Your task to perform on an android device: open wifi settings Image 0: 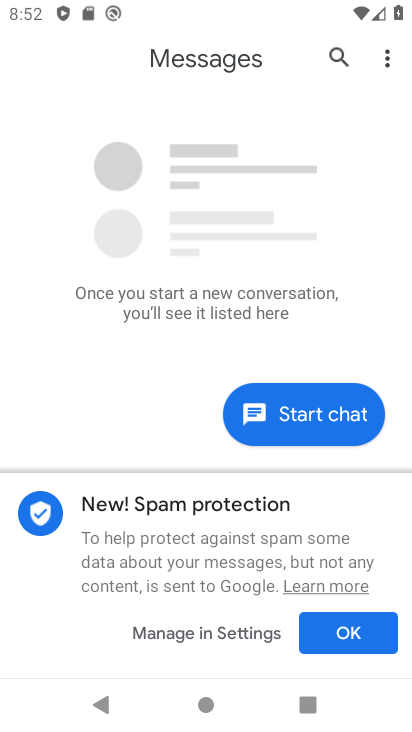
Step 0: press home button
Your task to perform on an android device: open wifi settings Image 1: 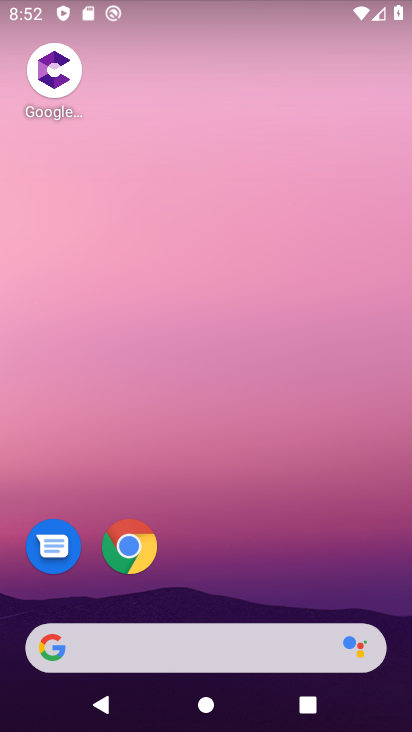
Step 1: drag from (208, 455) to (163, 10)
Your task to perform on an android device: open wifi settings Image 2: 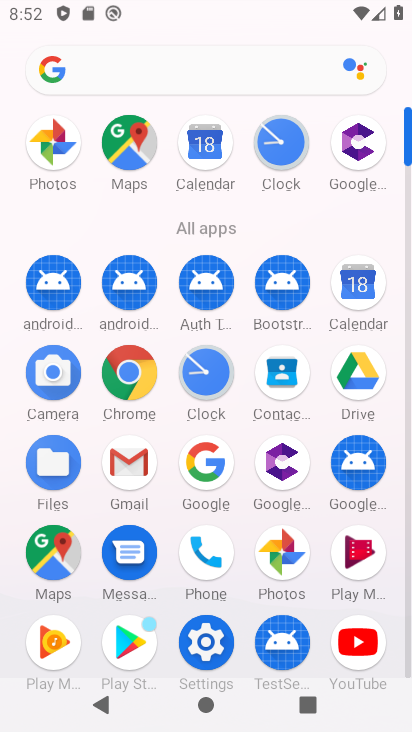
Step 2: drag from (396, 534) to (408, 356)
Your task to perform on an android device: open wifi settings Image 3: 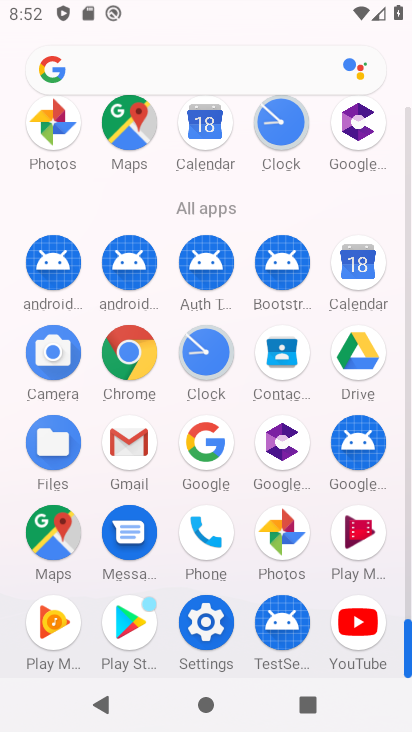
Step 3: click (194, 602)
Your task to perform on an android device: open wifi settings Image 4: 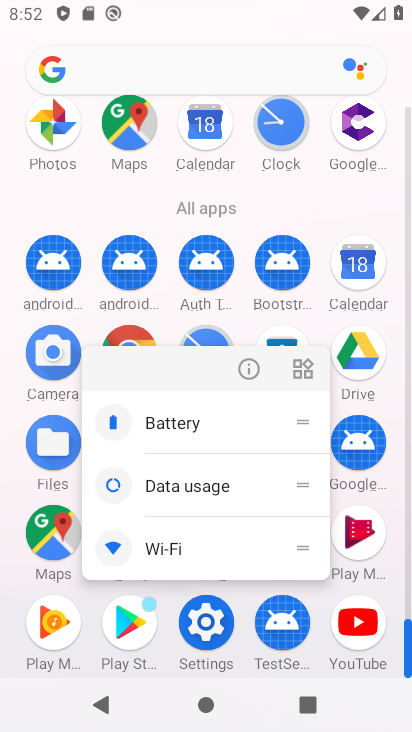
Step 4: click (198, 616)
Your task to perform on an android device: open wifi settings Image 5: 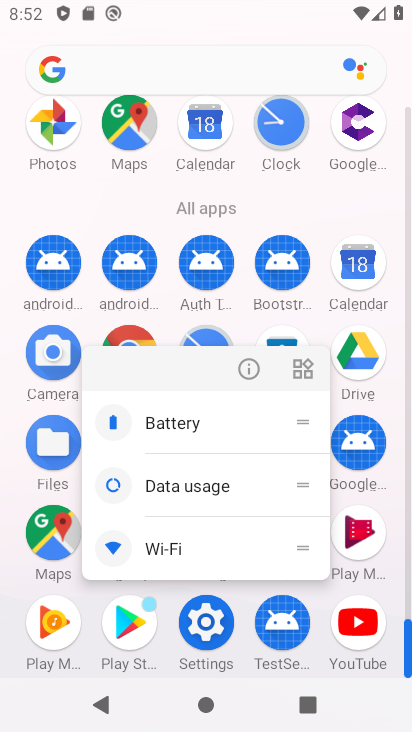
Step 5: click (198, 616)
Your task to perform on an android device: open wifi settings Image 6: 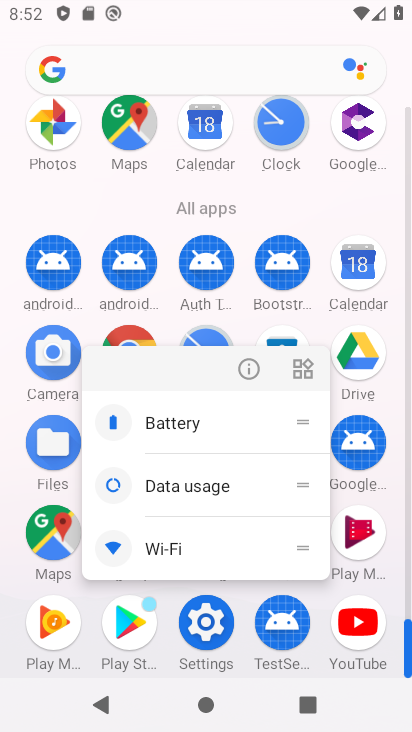
Step 6: click (198, 616)
Your task to perform on an android device: open wifi settings Image 7: 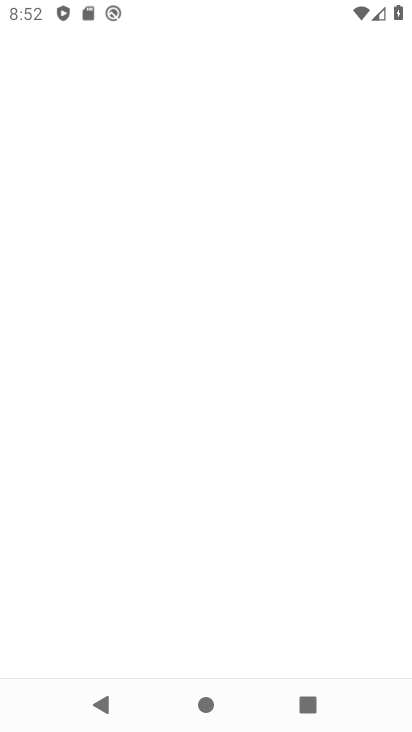
Step 7: click (199, 597)
Your task to perform on an android device: open wifi settings Image 8: 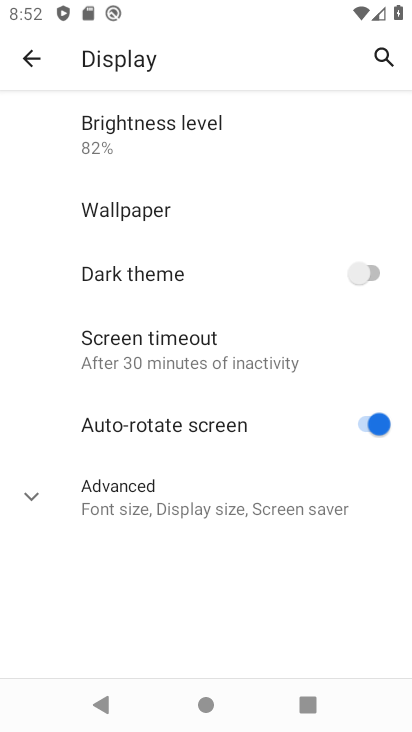
Step 8: click (40, 67)
Your task to perform on an android device: open wifi settings Image 9: 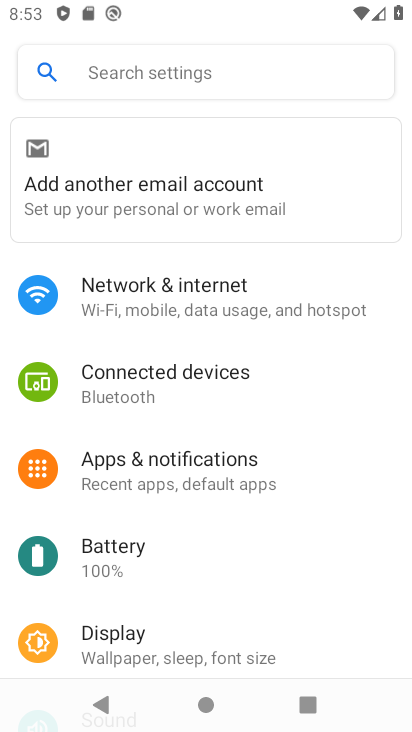
Step 9: click (213, 300)
Your task to perform on an android device: open wifi settings Image 10: 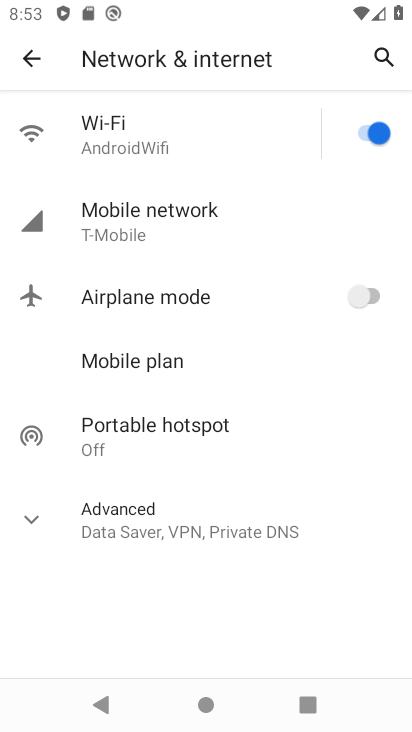
Step 10: click (152, 137)
Your task to perform on an android device: open wifi settings Image 11: 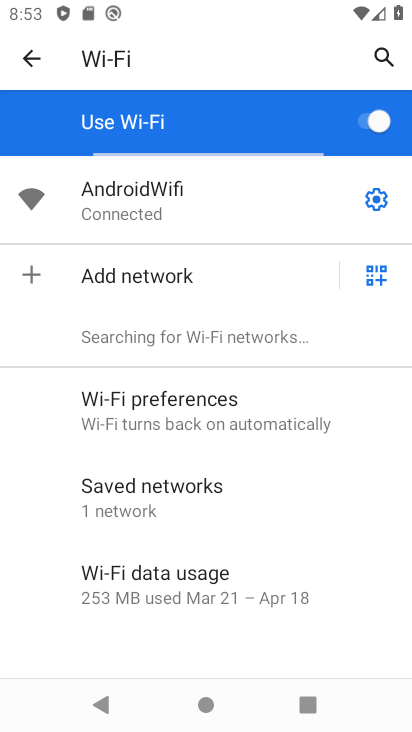
Step 11: task complete